Your task to perform on an android device: Go to Amazon Image 0: 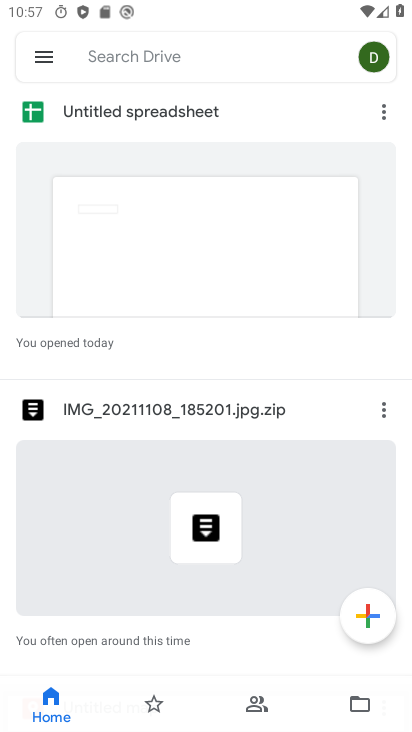
Step 0: press home button
Your task to perform on an android device: Go to Amazon Image 1: 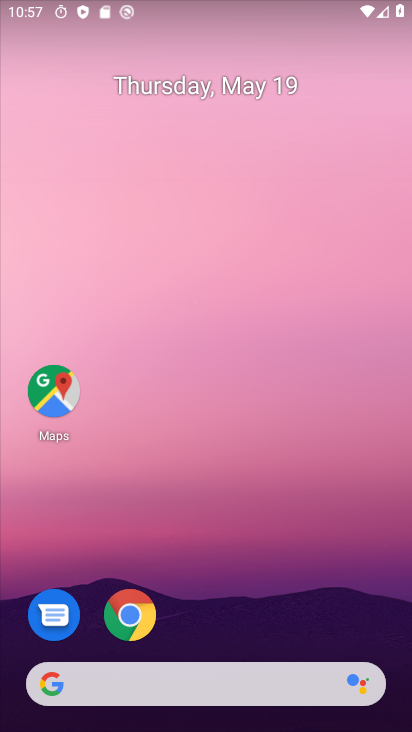
Step 1: click (111, 628)
Your task to perform on an android device: Go to Amazon Image 2: 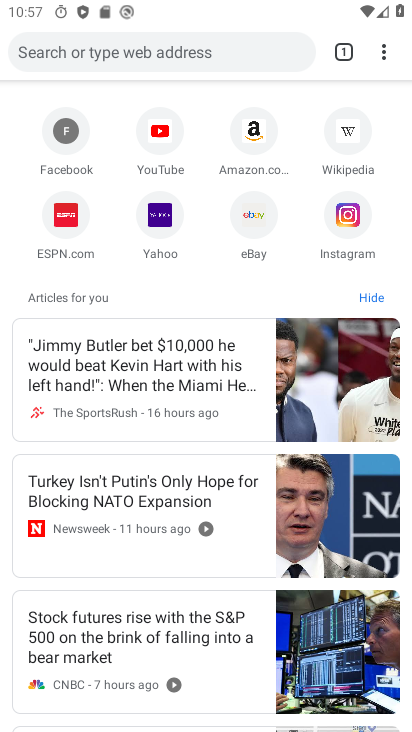
Step 2: click (259, 126)
Your task to perform on an android device: Go to Amazon Image 3: 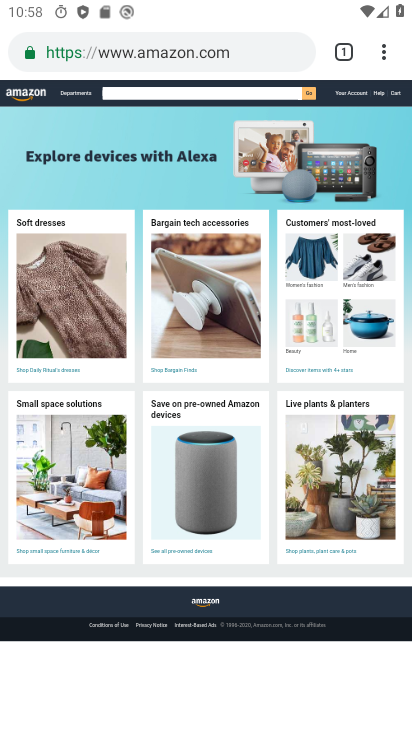
Step 3: task complete